Your task to perform on an android device: turn off javascript in the chrome app Image 0: 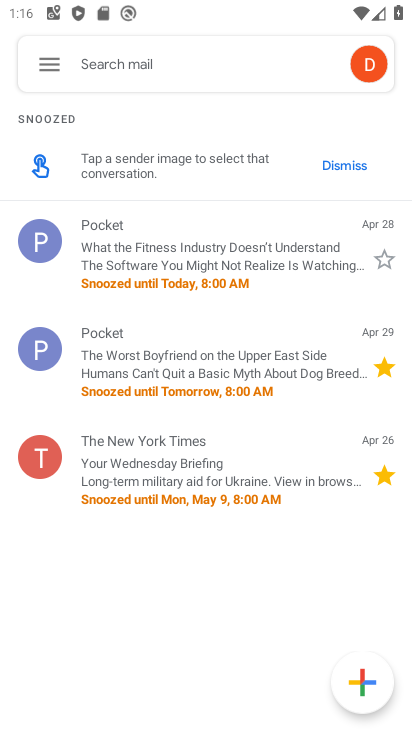
Step 0: press home button
Your task to perform on an android device: turn off javascript in the chrome app Image 1: 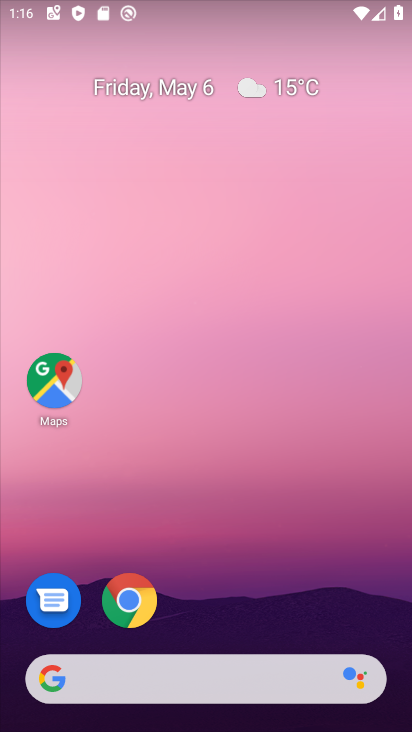
Step 1: drag from (340, 613) to (342, 150)
Your task to perform on an android device: turn off javascript in the chrome app Image 2: 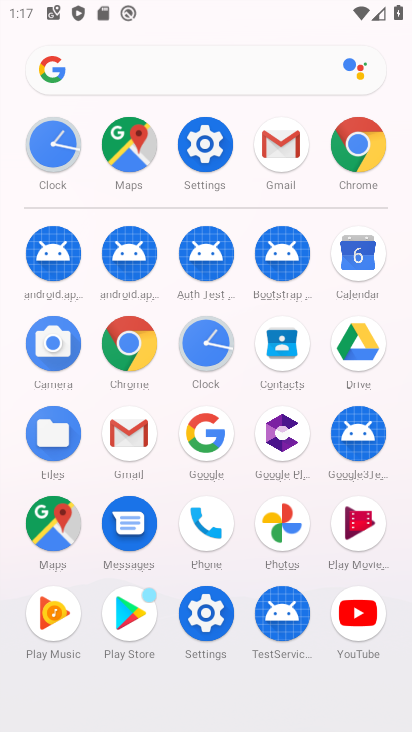
Step 2: click (141, 373)
Your task to perform on an android device: turn off javascript in the chrome app Image 3: 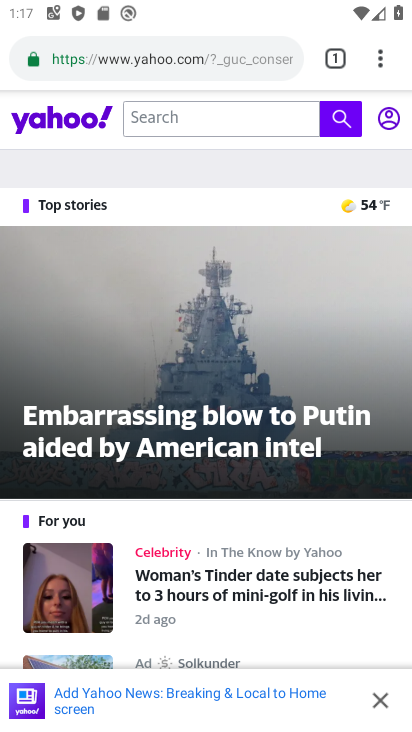
Step 3: press back button
Your task to perform on an android device: turn off javascript in the chrome app Image 4: 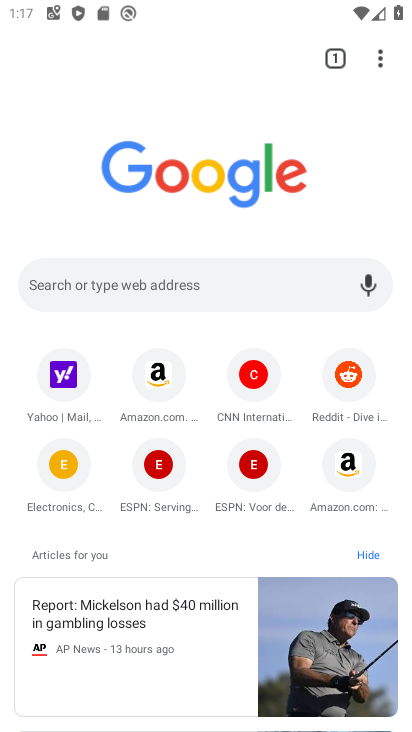
Step 4: click (383, 57)
Your task to perform on an android device: turn off javascript in the chrome app Image 5: 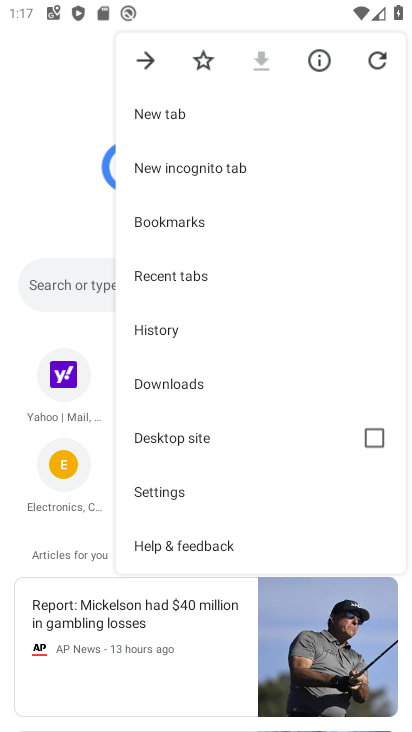
Step 5: click (197, 492)
Your task to perform on an android device: turn off javascript in the chrome app Image 6: 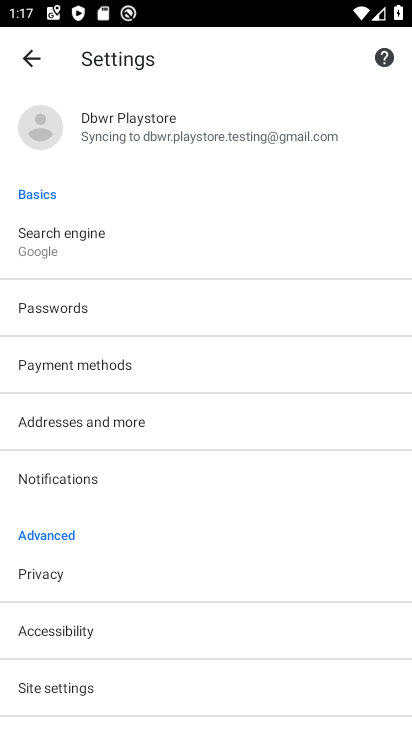
Step 6: drag from (115, 652) to (212, 388)
Your task to perform on an android device: turn off javascript in the chrome app Image 7: 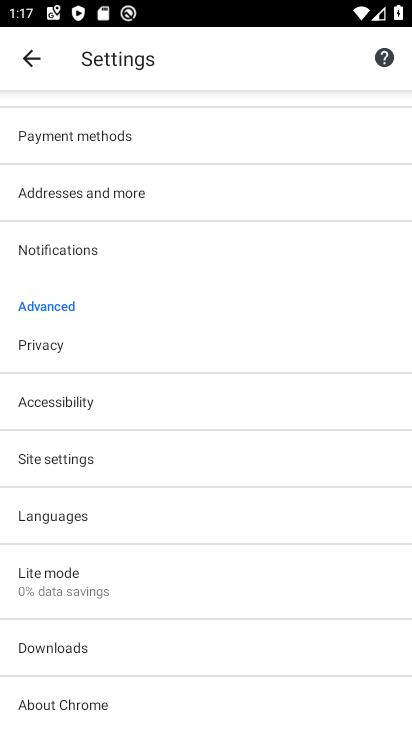
Step 7: click (150, 465)
Your task to perform on an android device: turn off javascript in the chrome app Image 8: 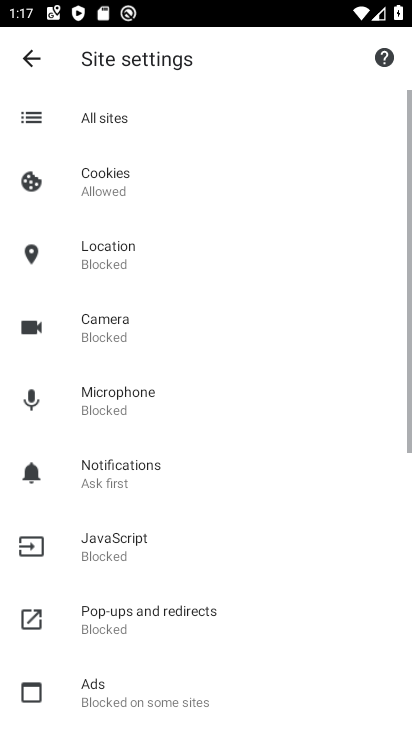
Step 8: click (157, 558)
Your task to perform on an android device: turn off javascript in the chrome app Image 9: 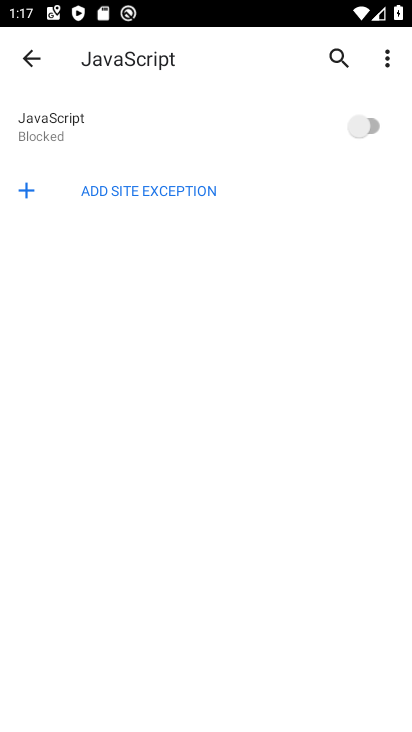
Step 9: task complete